Your task to perform on an android device: stop showing notifications on the lock screen Image 0: 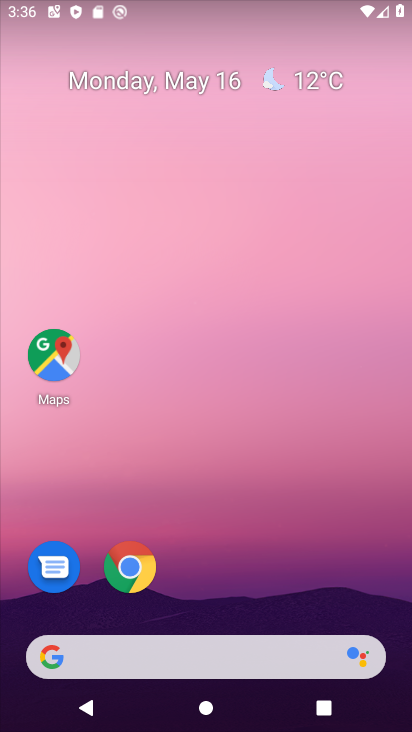
Step 0: drag from (285, 481) to (212, 0)
Your task to perform on an android device: stop showing notifications on the lock screen Image 1: 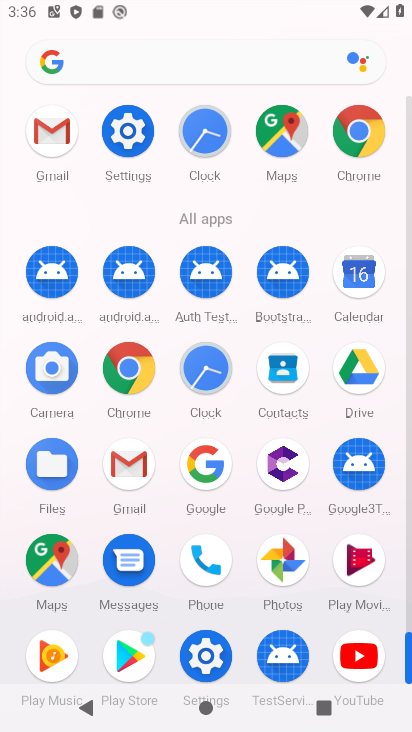
Step 1: drag from (10, 548) to (4, 276)
Your task to perform on an android device: stop showing notifications on the lock screen Image 2: 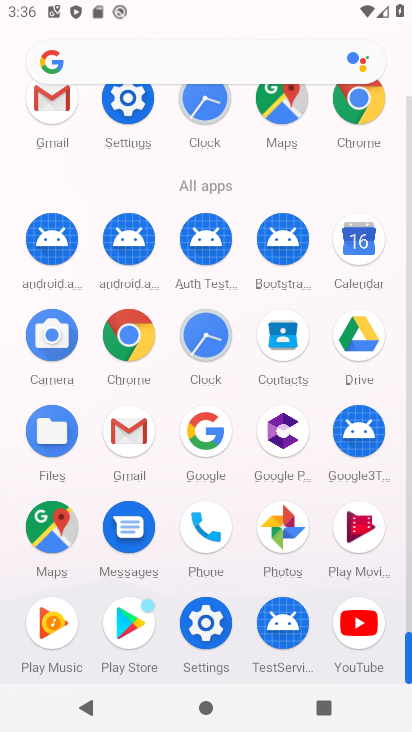
Step 2: click (209, 621)
Your task to perform on an android device: stop showing notifications on the lock screen Image 3: 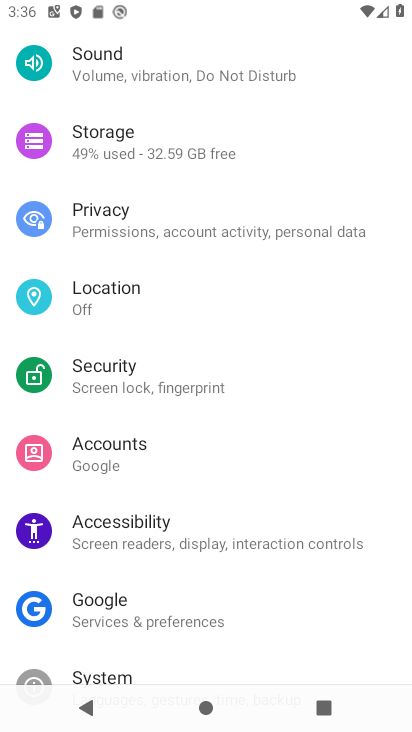
Step 3: drag from (218, 134) to (182, 624)
Your task to perform on an android device: stop showing notifications on the lock screen Image 4: 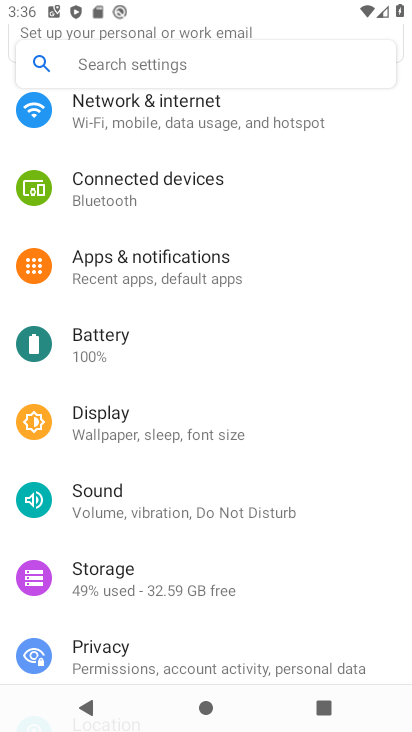
Step 4: click (134, 272)
Your task to perform on an android device: stop showing notifications on the lock screen Image 5: 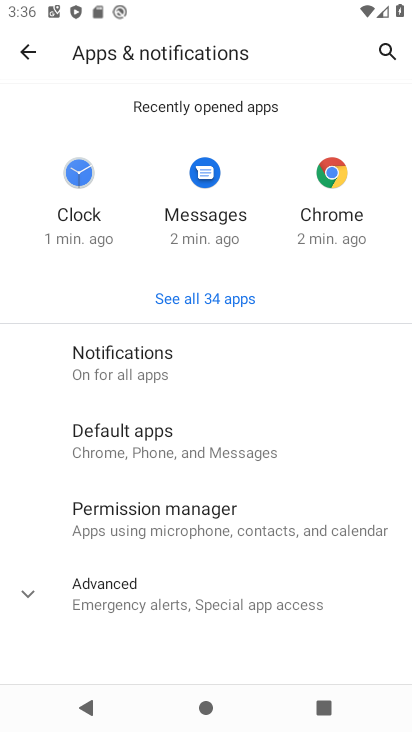
Step 5: click (42, 588)
Your task to perform on an android device: stop showing notifications on the lock screen Image 6: 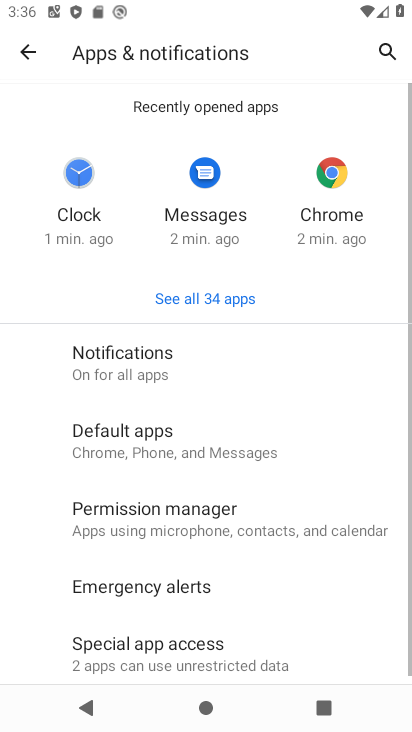
Step 6: click (180, 355)
Your task to perform on an android device: stop showing notifications on the lock screen Image 7: 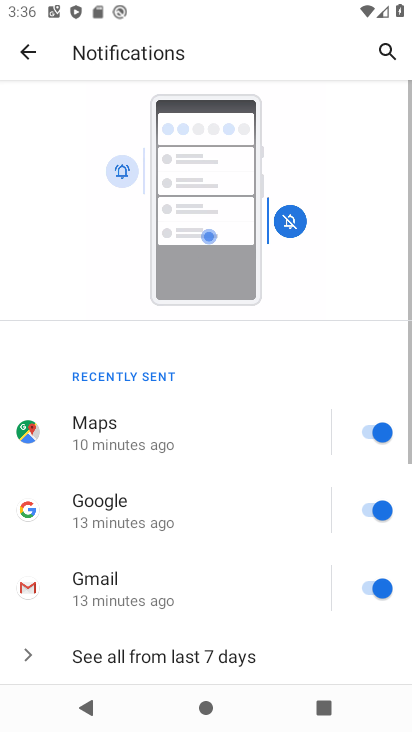
Step 7: drag from (230, 534) to (254, 140)
Your task to perform on an android device: stop showing notifications on the lock screen Image 8: 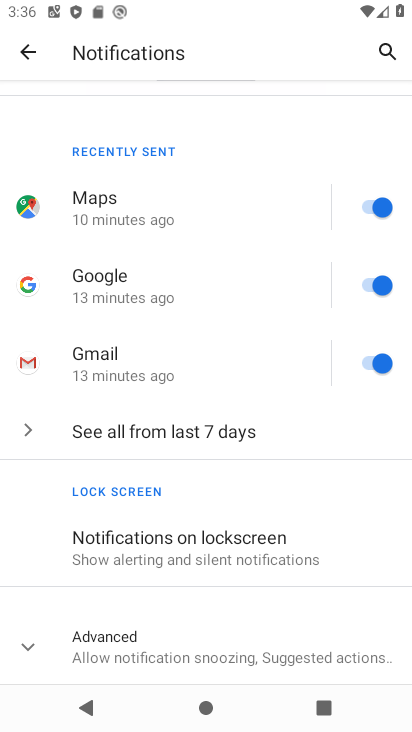
Step 8: click (39, 651)
Your task to perform on an android device: stop showing notifications on the lock screen Image 9: 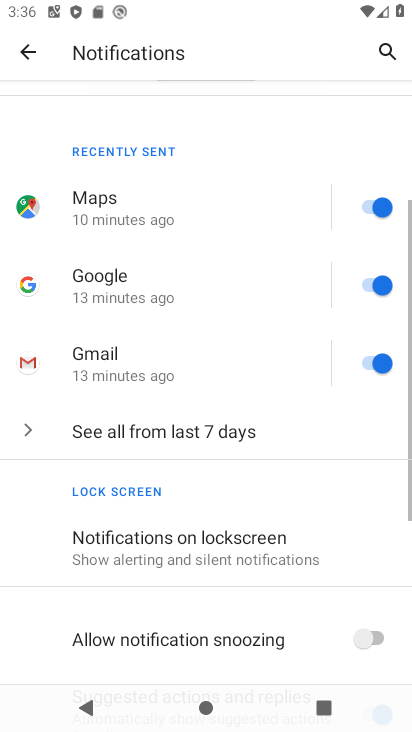
Step 9: drag from (204, 568) to (197, 148)
Your task to perform on an android device: stop showing notifications on the lock screen Image 10: 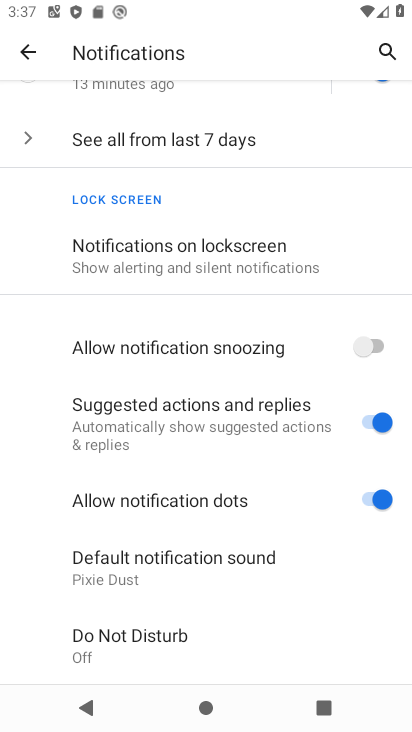
Step 10: click (229, 261)
Your task to perform on an android device: stop showing notifications on the lock screen Image 11: 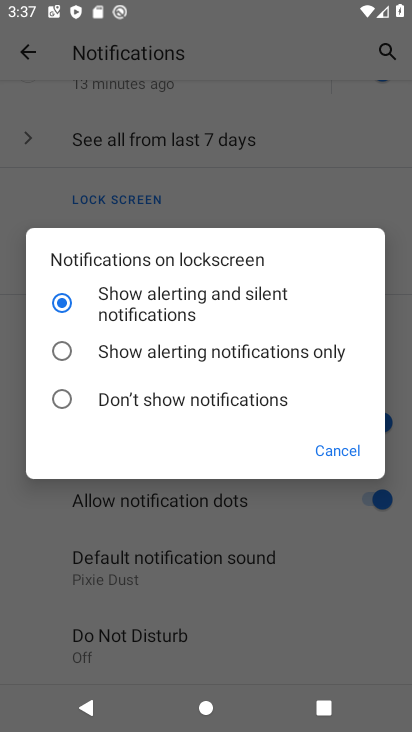
Step 11: click (150, 405)
Your task to perform on an android device: stop showing notifications on the lock screen Image 12: 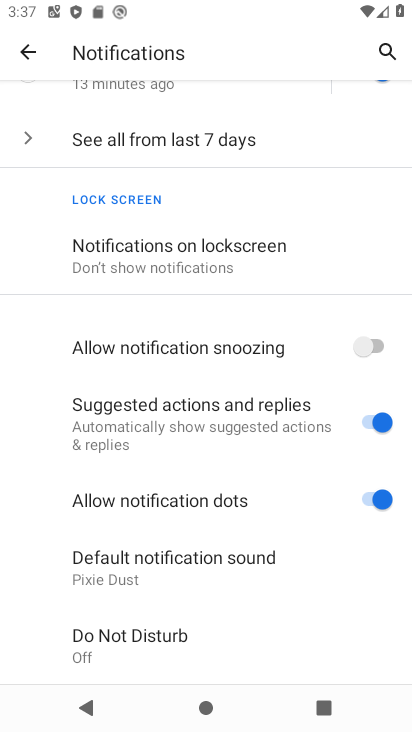
Step 12: task complete